Your task to perform on an android device: Go to Google Image 0: 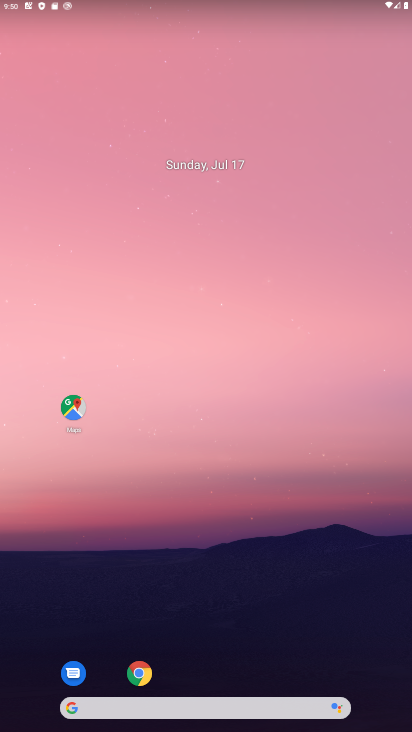
Step 0: drag from (236, 371) to (229, 109)
Your task to perform on an android device: Go to Google Image 1: 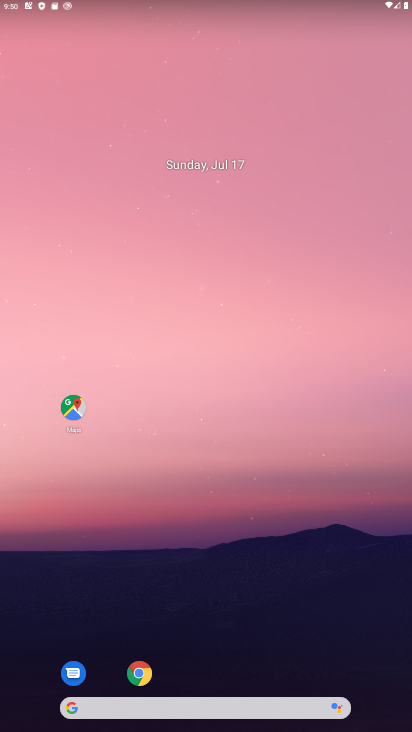
Step 1: drag from (186, 678) to (216, 66)
Your task to perform on an android device: Go to Google Image 2: 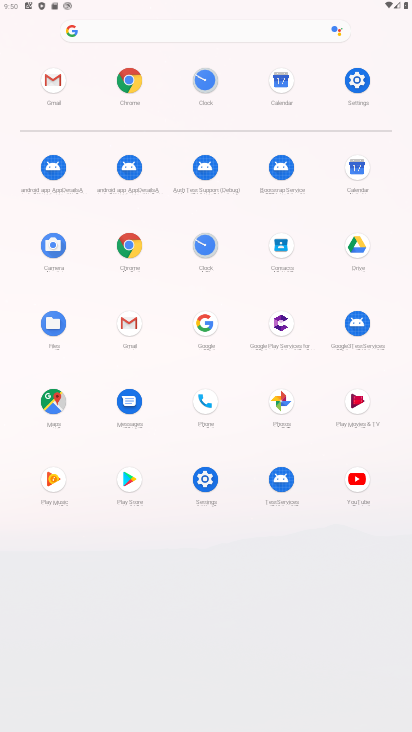
Step 2: click (204, 322)
Your task to perform on an android device: Go to Google Image 3: 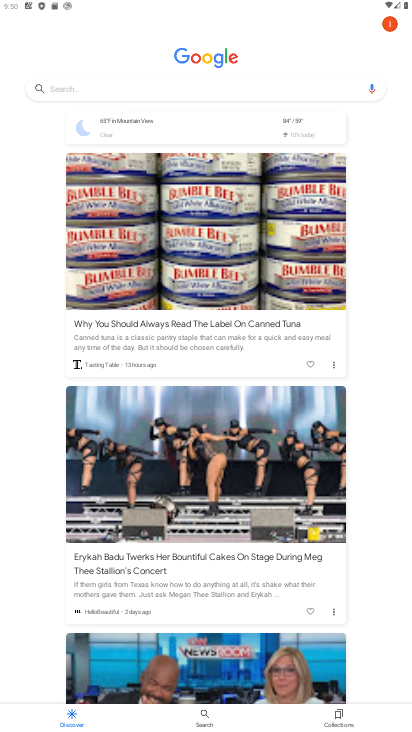
Step 3: task complete